Your task to perform on an android device: Open the phone app and click the voicemail tab. Image 0: 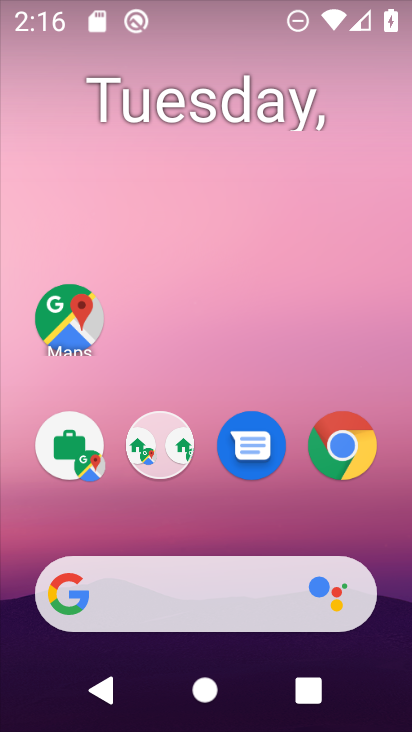
Step 0: drag from (243, 534) to (312, 214)
Your task to perform on an android device: Open the phone app and click the voicemail tab. Image 1: 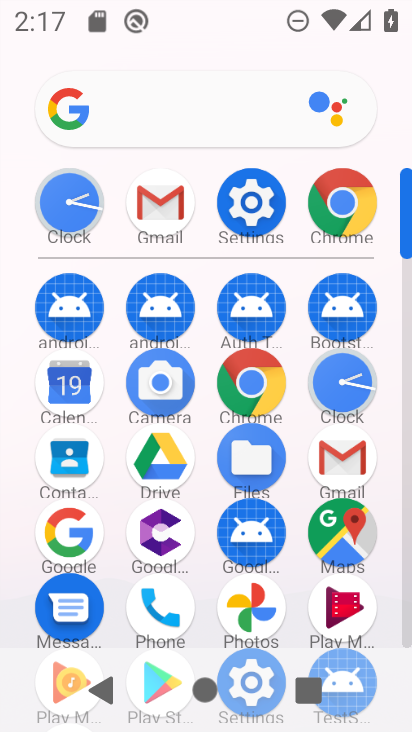
Step 1: click (171, 612)
Your task to perform on an android device: Open the phone app and click the voicemail tab. Image 2: 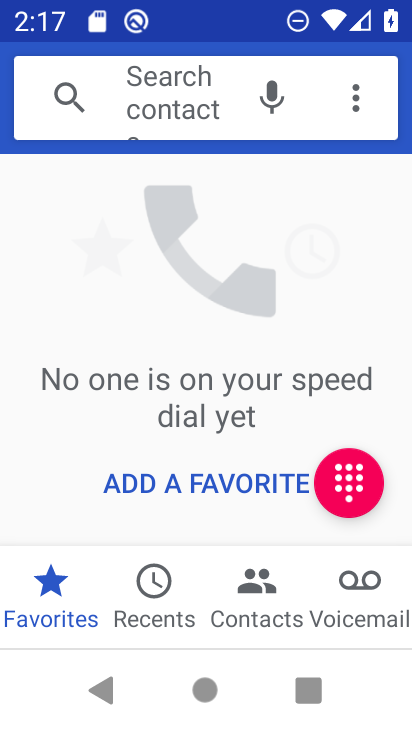
Step 2: click (367, 588)
Your task to perform on an android device: Open the phone app and click the voicemail tab. Image 3: 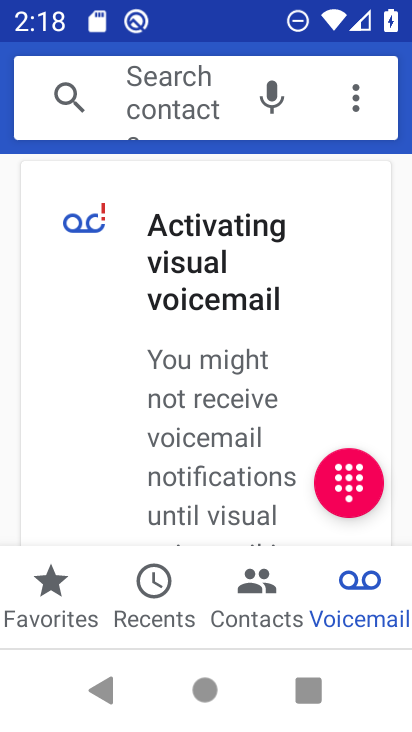
Step 3: task complete